Your task to perform on an android device: open a bookmark in the chrome app Image 0: 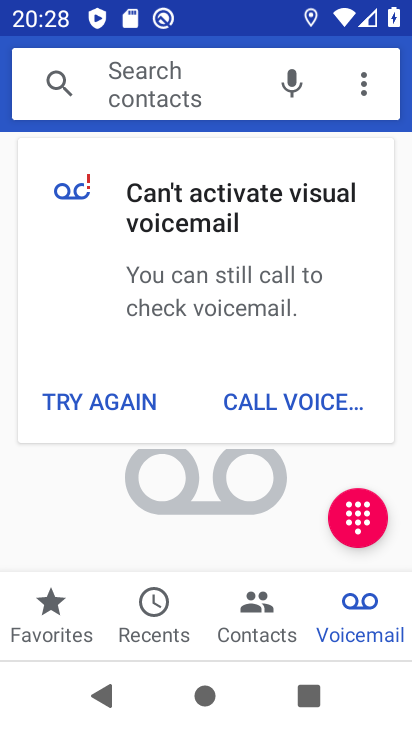
Step 0: press home button
Your task to perform on an android device: open a bookmark in the chrome app Image 1: 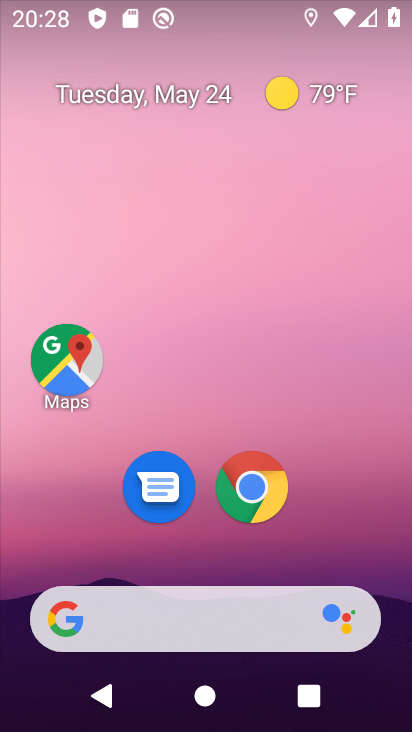
Step 1: click (242, 470)
Your task to perform on an android device: open a bookmark in the chrome app Image 2: 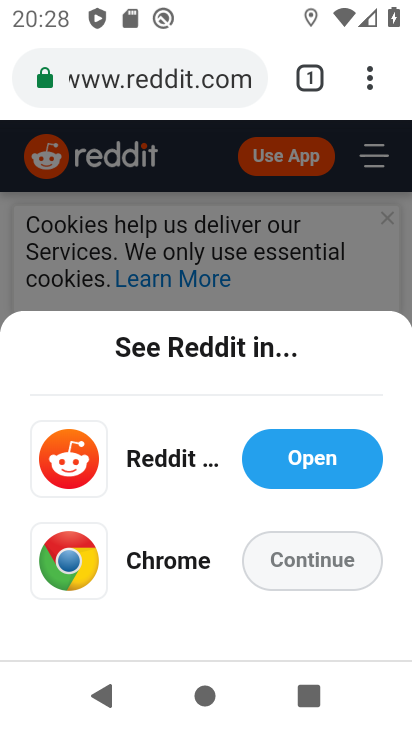
Step 2: task complete